Your task to perform on an android device: Go to network settings Image 0: 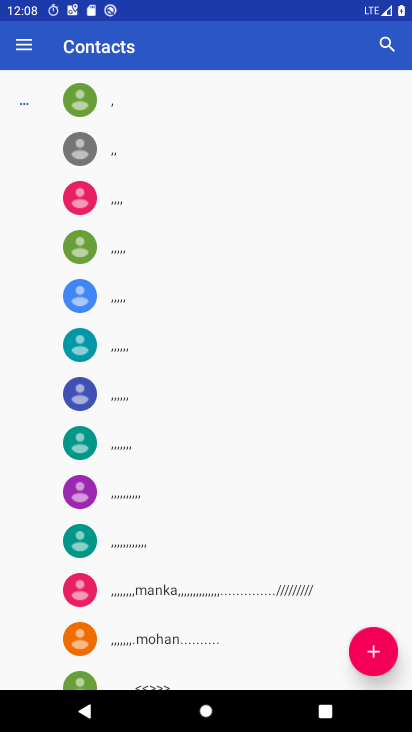
Step 0: press home button
Your task to perform on an android device: Go to network settings Image 1: 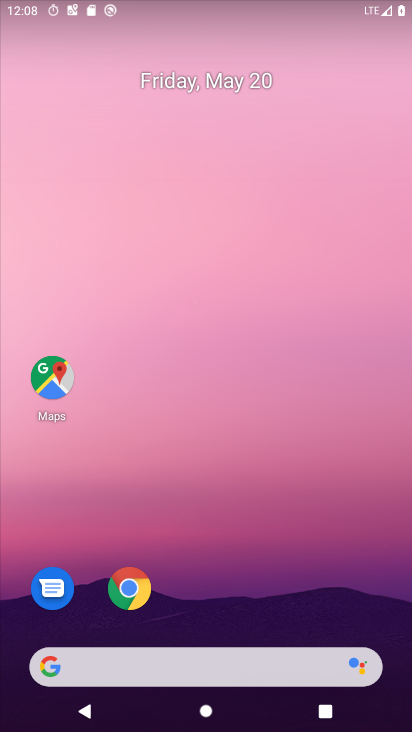
Step 1: drag from (219, 665) to (314, 67)
Your task to perform on an android device: Go to network settings Image 2: 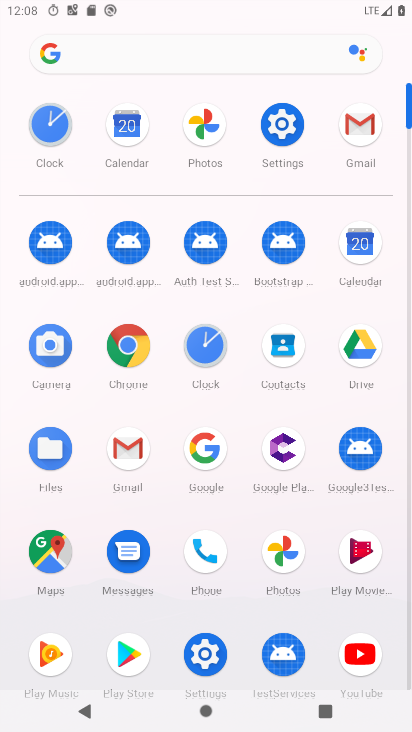
Step 2: click (283, 122)
Your task to perform on an android device: Go to network settings Image 3: 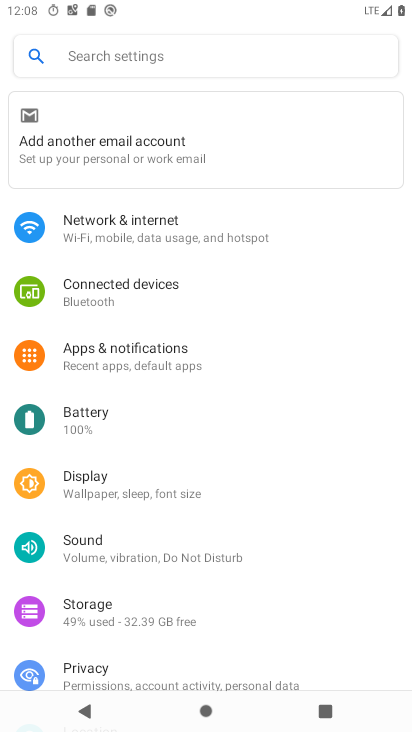
Step 3: click (113, 230)
Your task to perform on an android device: Go to network settings Image 4: 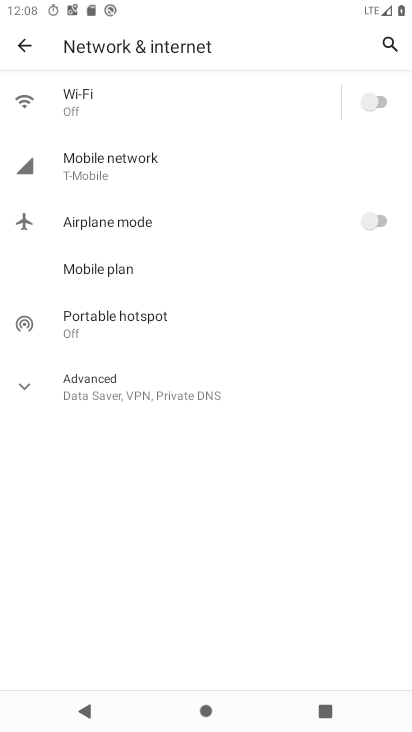
Step 4: task complete